Your task to perform on an android device: toggle sleep mode Image 0: 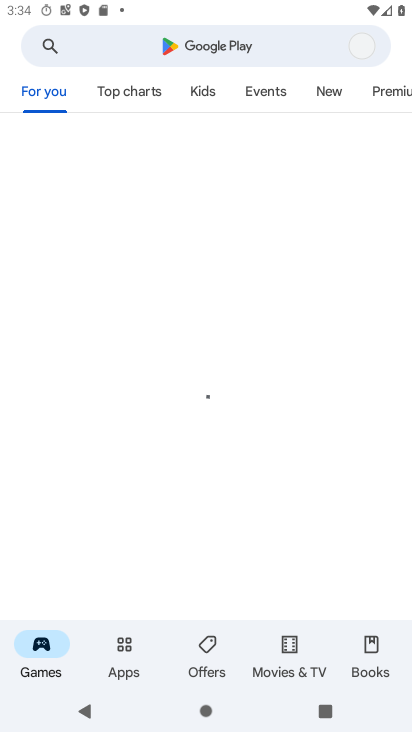
Step 0: press home button
Your task to perform on an android device: toggle sleep mode Image 1: 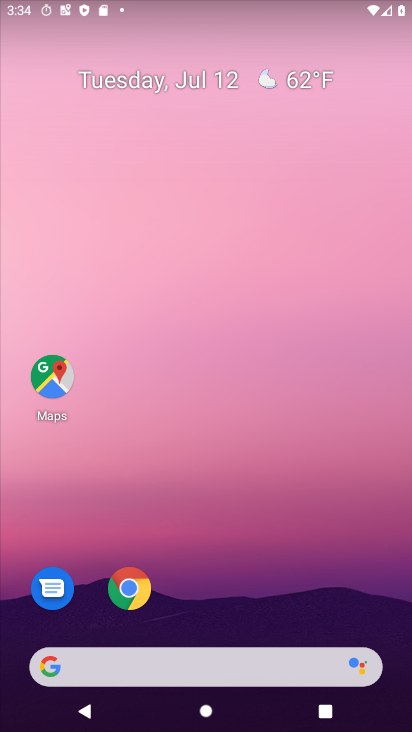
Step 1: drag from (228, 615) to (237, 58)
Your task to perform on an android device: toggle sleep mode Image 2: 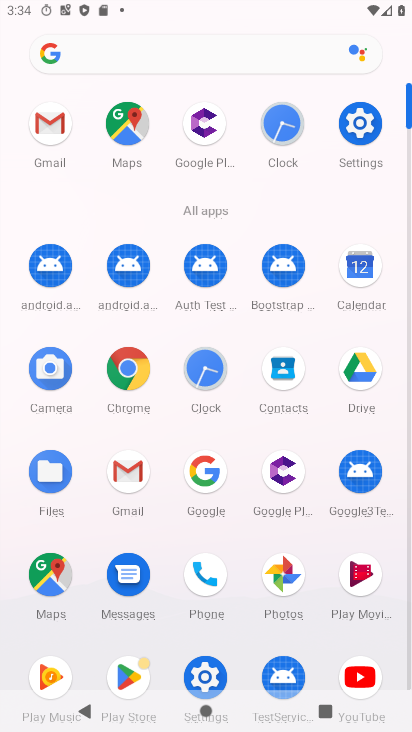
Step 2: click (354, 134)
Your task to perform on an android device: toggle sleep mode Image 3: 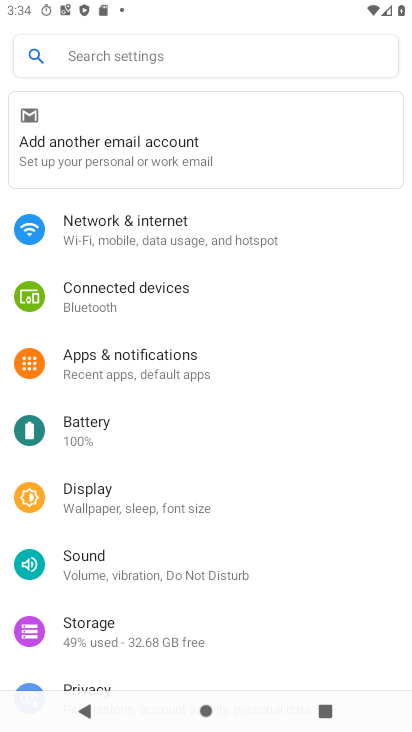
Step 3: click (256, 55)
Your task to perform on an android device: toggle sleep mode Image 4: 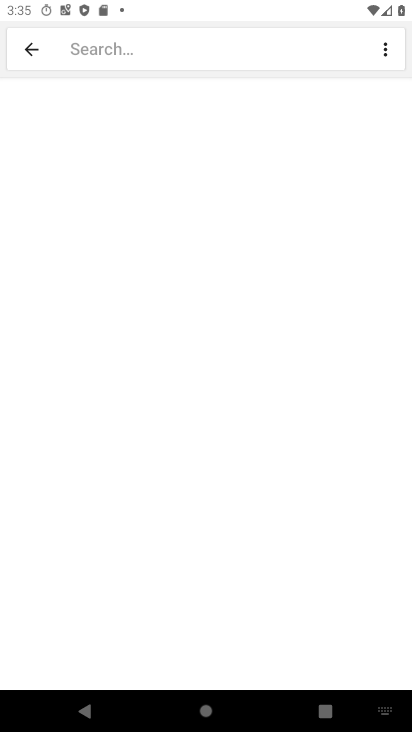
Step 4: type "sleep mode"
Your task to perform on an android device: toggle sleep mode Image 5: 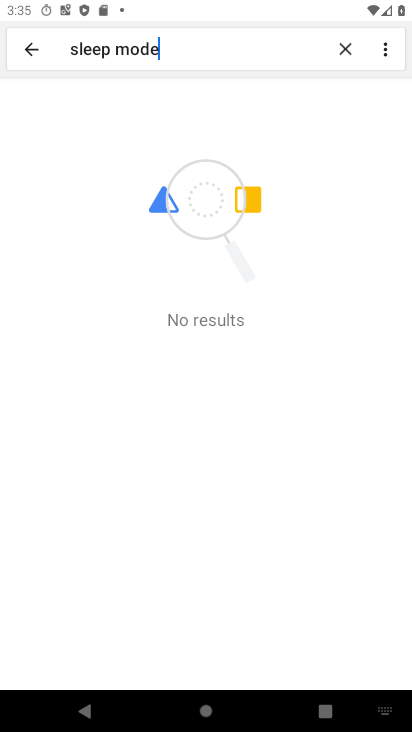
Step 5: task complete